Your task to perform on an android device: Go to Reddit.com Image 0: 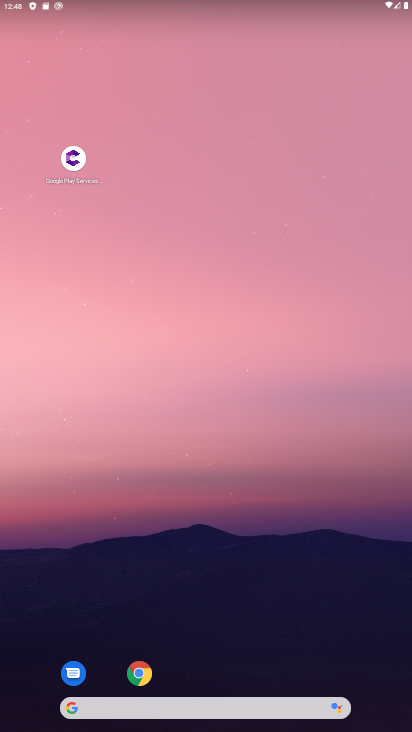
Step 0: click (141, 674)
Your task to perform on an android device: Go to Reddit.com Image 1: 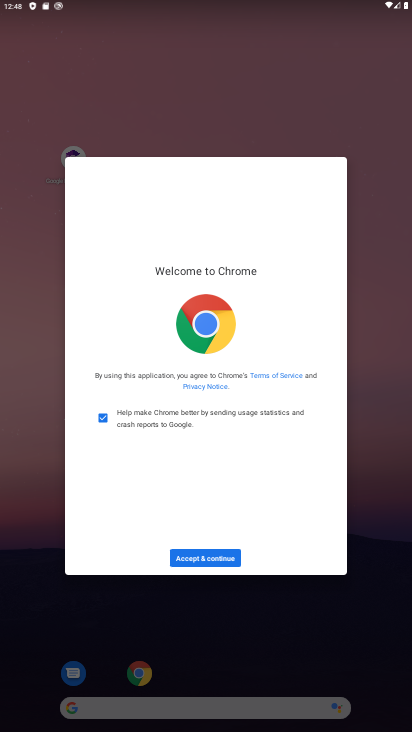
Step 1: click (204, 550)
Your task to perform on an android device: Go to Reddit.com Image 2: 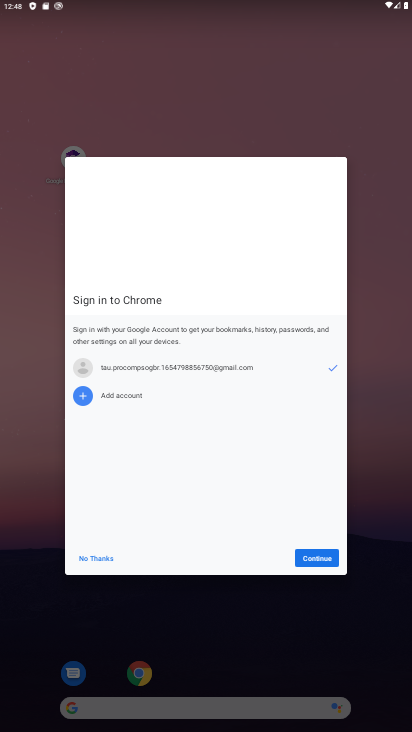
Step 2: click (315, 556)
Your task to perform on an android device: Go to Reddit.com Image 3: 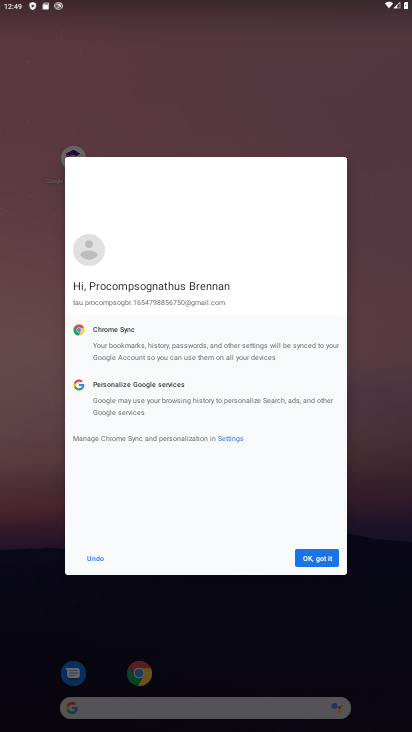
Step 3: click (315, 556)
Your task to perform on an android device: Go to Reddit.com Image 4: 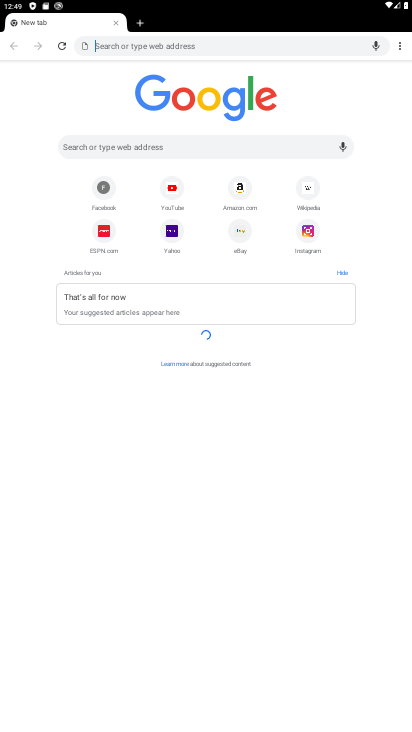
Step 4: click (114, 144)
Your task to perform on an android device: Go to Reddit.com Image 5: 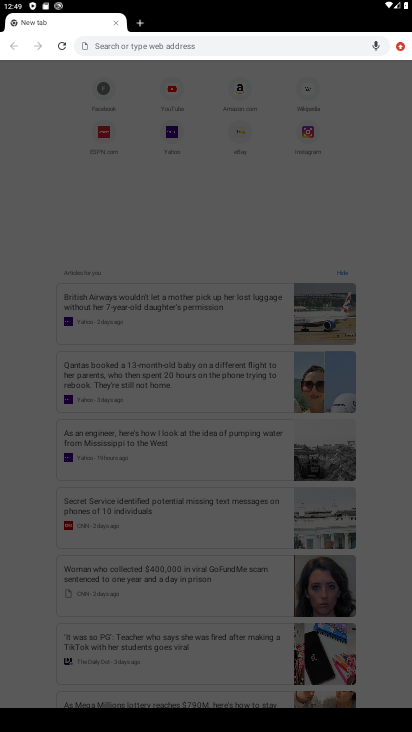
Step 5: type "reddit.com"
Your task to perform on an android device: Go to Reddit.com Image 6: 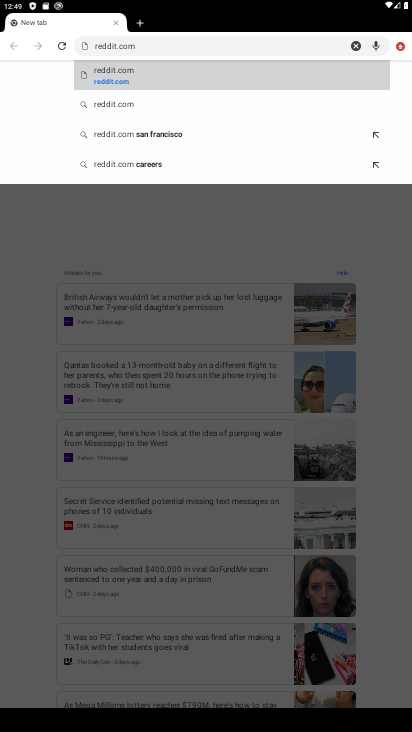
Step 6: click (123, 70)
Your task to perform on an android device: Go to Reddit.com Image 7: 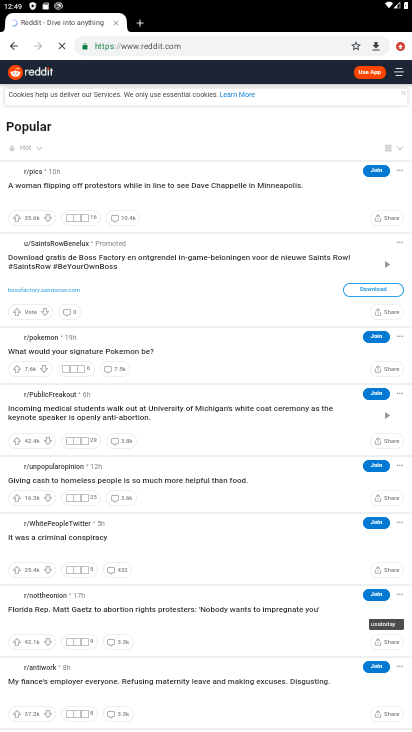
Step 7: task complete